Your task to perform on an android device: Show me popular games on the Play Store Image 0: 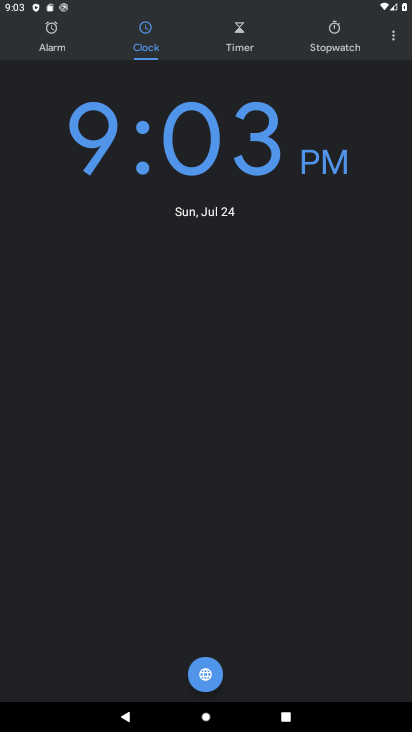
Step 0: task impossible